Your task to perform on an android device: Show me recent news Image 0: 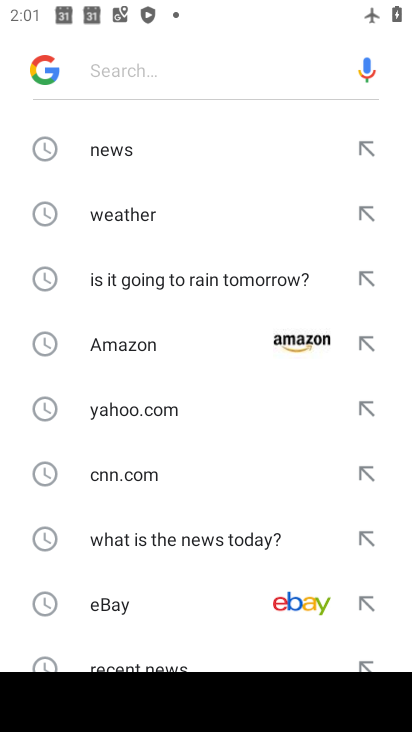
Step 0: press home button
Your task to perform on an android device: Show me recent news Image 1: 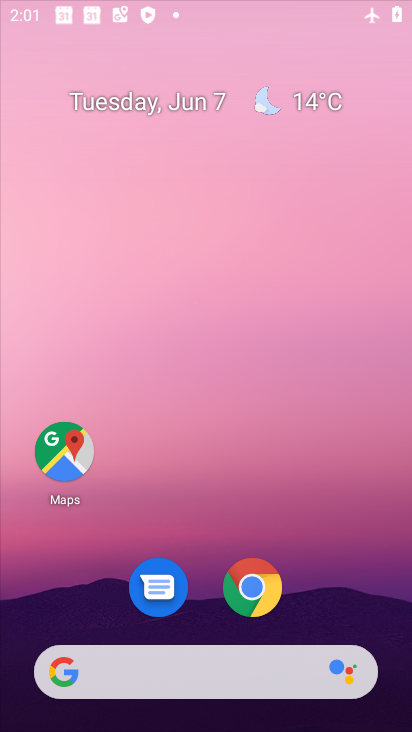
Step 1: drag from (203, 677) to (215, 175)
Your task to perform on an android device: Show me recent news Image 2: 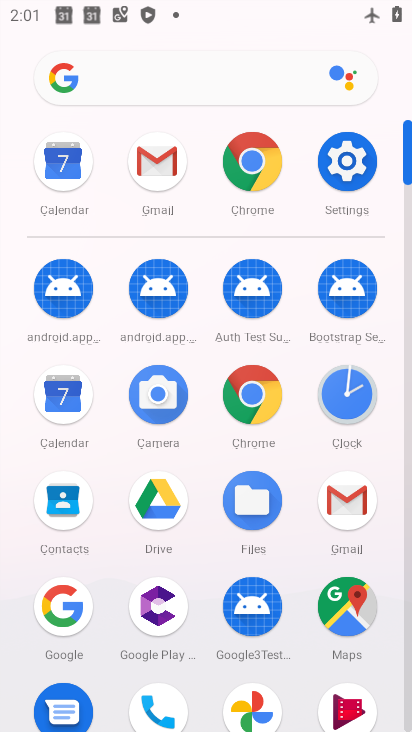
Step 2: click (71, 615)
Your task to perform on an android device: Show me recent news Image 3: 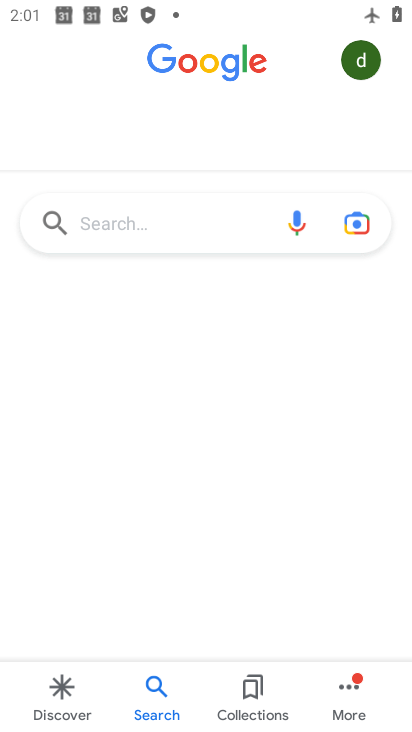
Step 3: click (148, 218)
Your task to perform on an android device: Show me recent news Image 4: 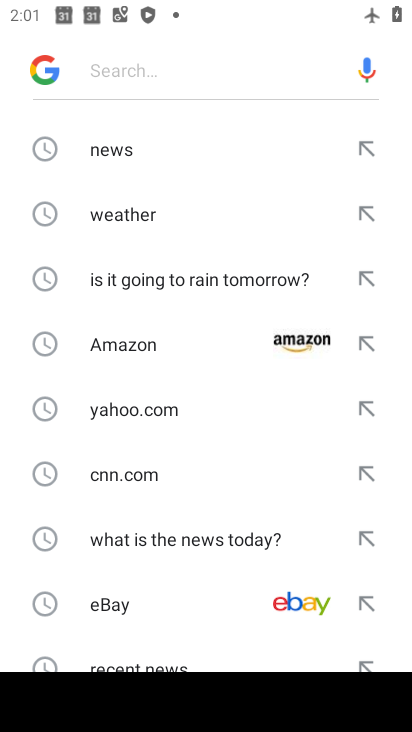
Step 4: click (200, 151)
Your task to perform on an android device: Show me recent news Image 5: 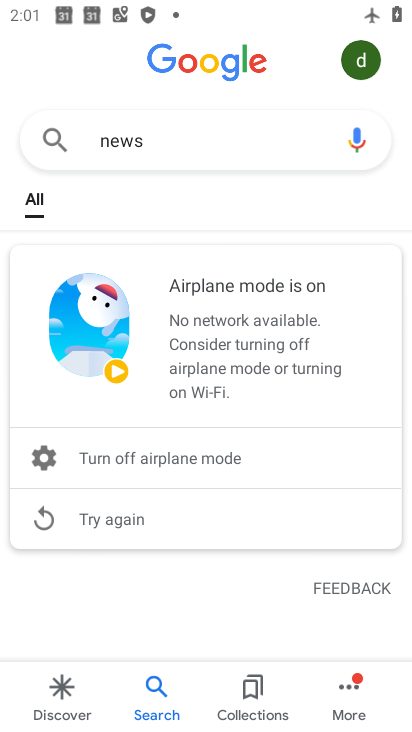
Step 5: task complete